Your task to perform on an android device: manage bookmarks in the chrome app Image 0: 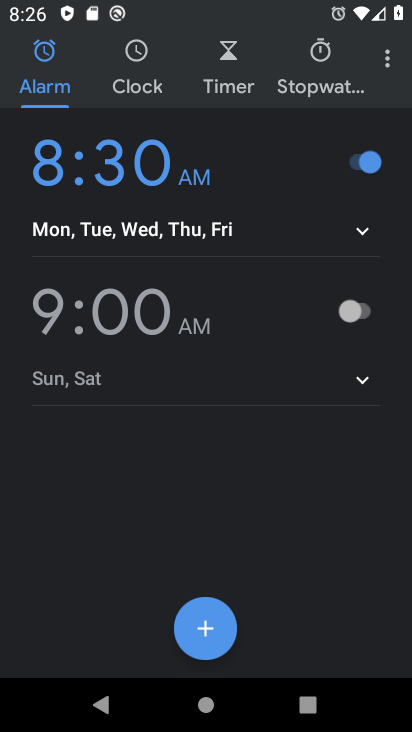
Step 0: press home button
Your task to perform on an android device: manage bookmarks in the chrome app Image 1: 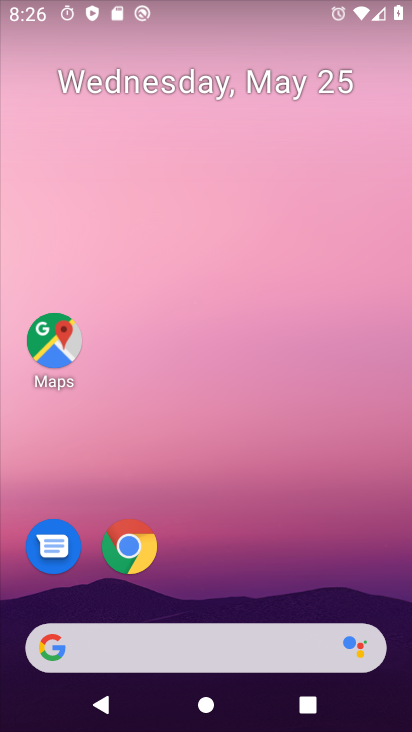
Step 1: click (130, 552)
Your task to perform on an android device: manage bookmarks in the chrome app Image 2: 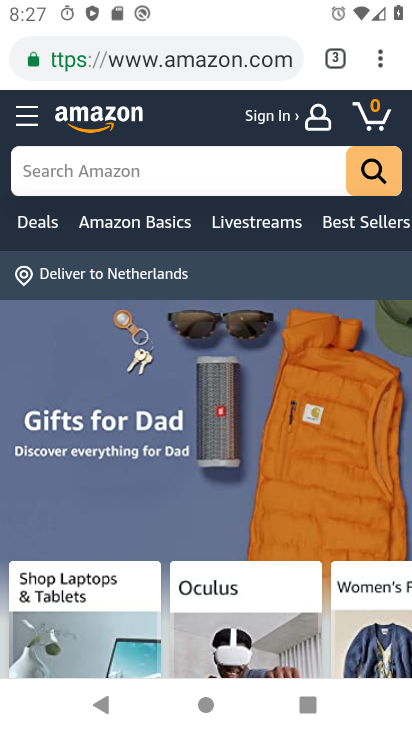
Step 2: click (377, 59)
Your task to perform on an android device: manage bookmarks in the chrome app Image 3: 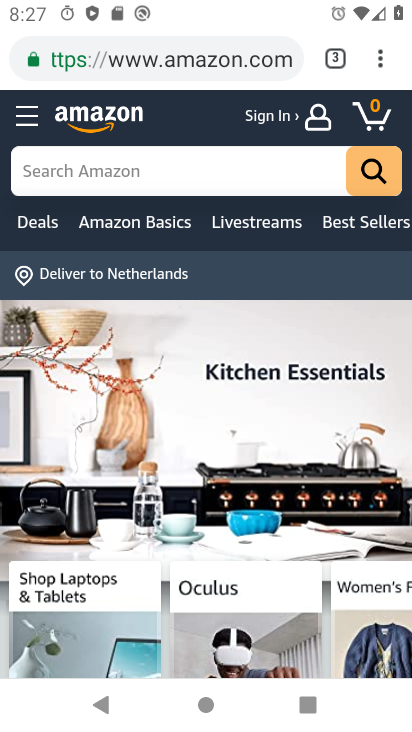
Step 3: click (382, 57)
Your task to perform on an android device: manage bookmarks in the chrome app Image 4: 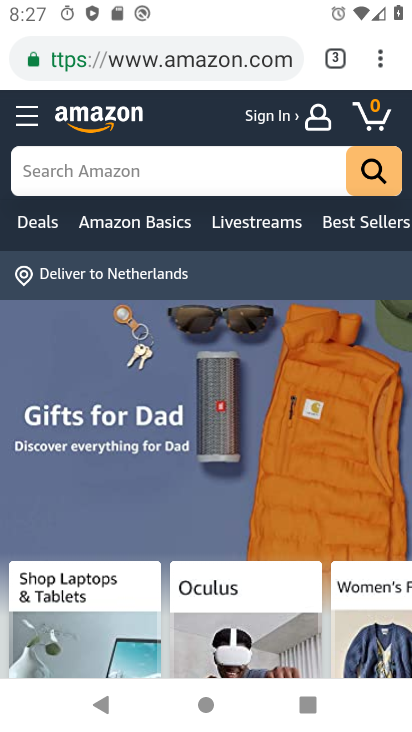
Step 4: click (380, 65)
Your task to perform on an android device: manage bookmarks in the chrome app Image 5: 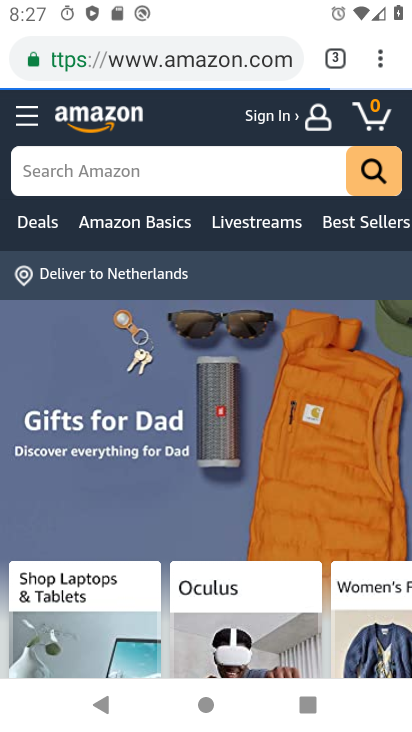
Step 5: click (380, 62)
Your task to perform on an android device: manage bookmarks in the chrome app Image 6: 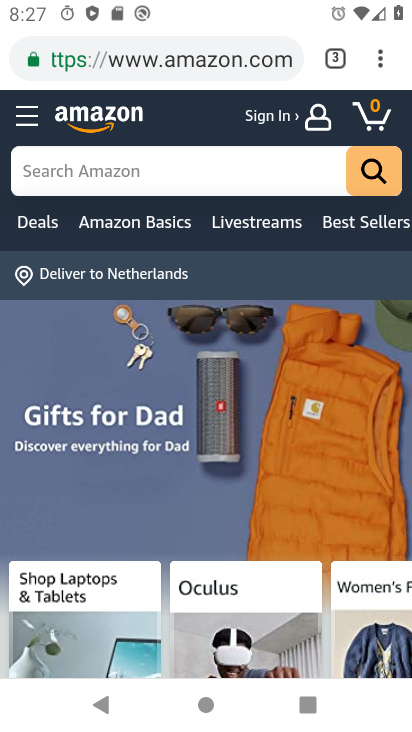
Step 6: click (380, 62)
Your task to perform on an android device: manage bookmarks in the chrome app Image 7: 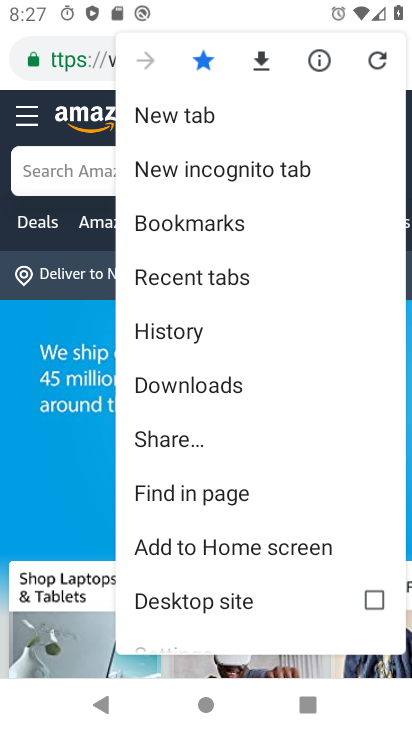
Step 7: click (211, 231)
Your task to perform on an android device: manage bookmarks in the chrome app Image 8: 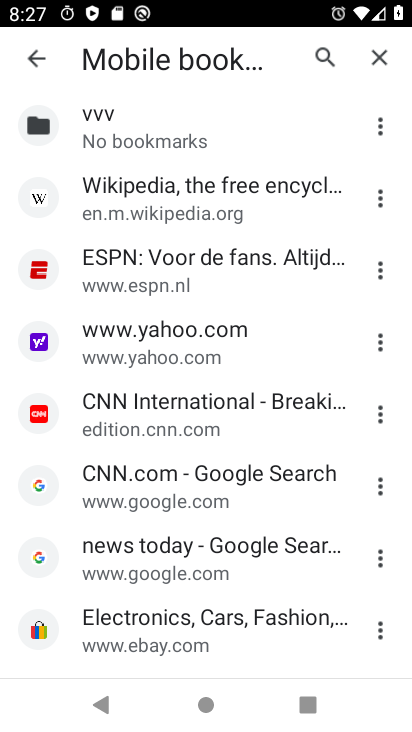
Step 8: click (376, 199)
Your task to perform on an android device: manage bookmarks in the chrome app Image 9: 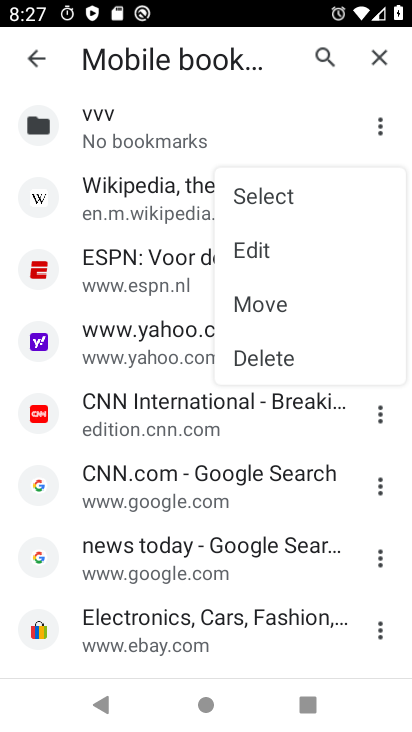
Step 9: click (279, 356)
Your task to perform on an android device: manage bookmarks in the chrome app Image 10: 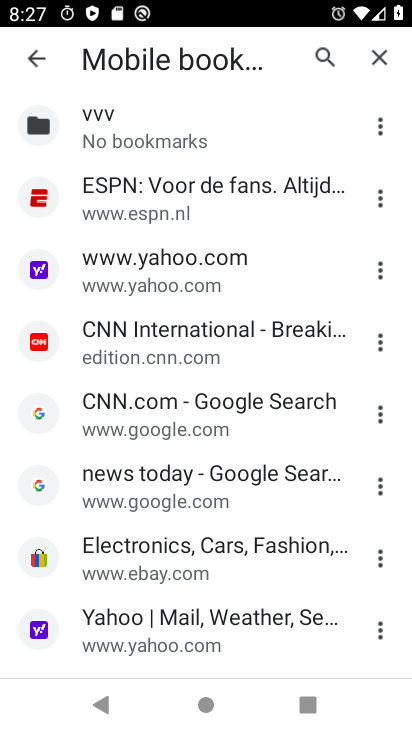
Step 10: task complete